Your task to perform on an android device: see creations saved in the google photos Image 0: 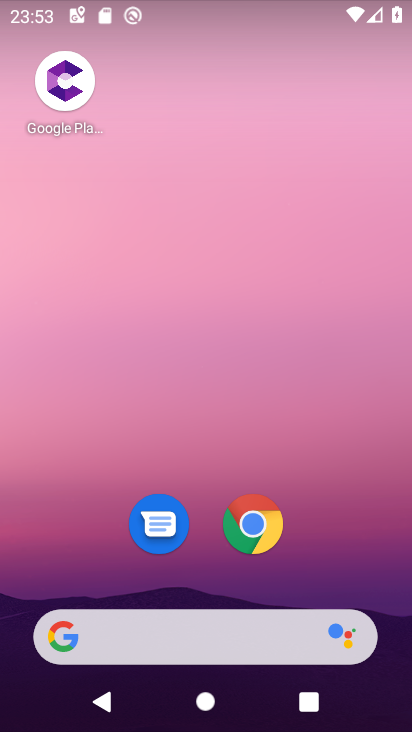
Step 0: drag from (310, 517) to (331, 62)
Your task to perform on an android device: see creations saved in the google photos Image 1: 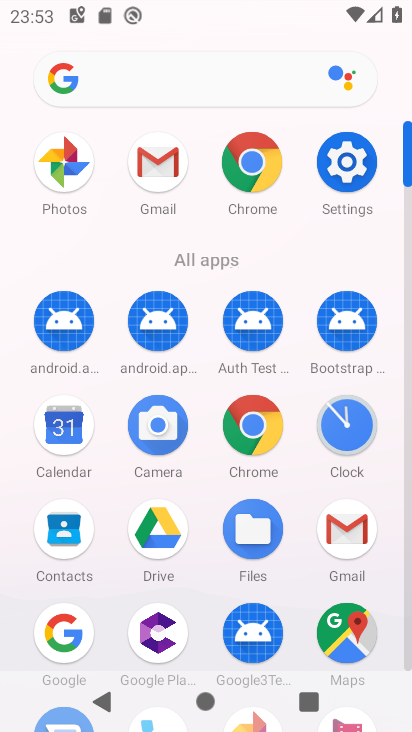
Step 1: click (67, 164)
Your task to perform on an android device: see creations saved in the google photos Image 2: 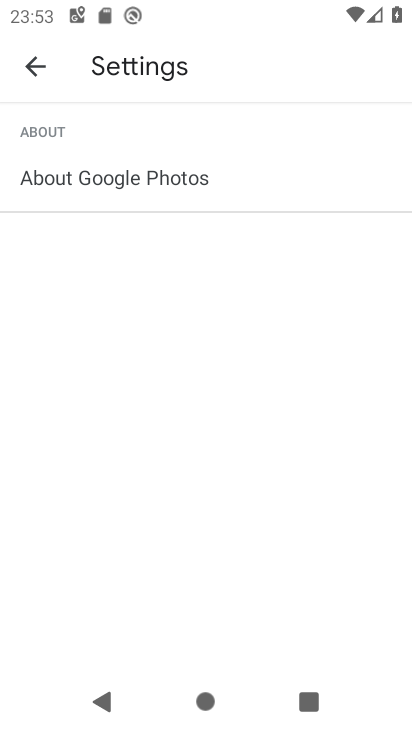
Step 2: click (43, 60)
Your task to perform on an android device: see creations saved in the google photos Image 3: 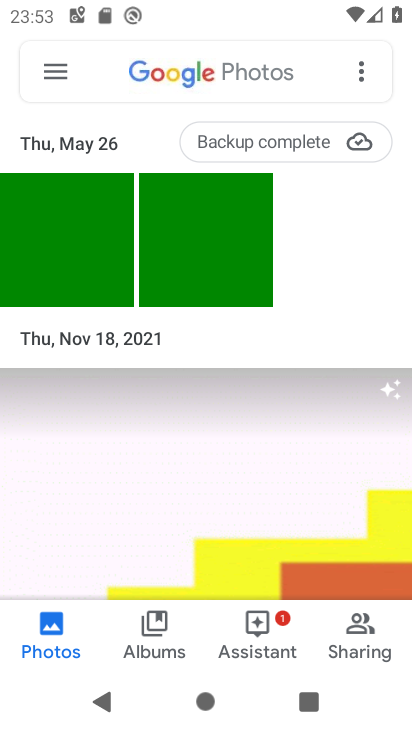
Step 3: click (175, 65)
Your task to perform on an android device: see creations saved in the google photos Image 4: 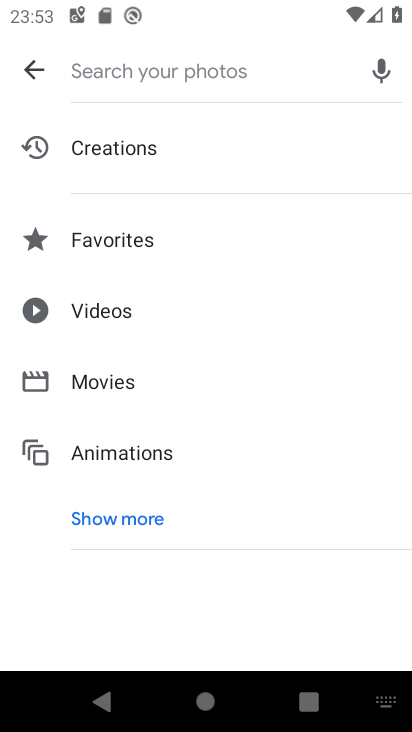
Step 4: click (131, 146)
Your task to perform on an android device: see creations saved in the google photos Image 5: 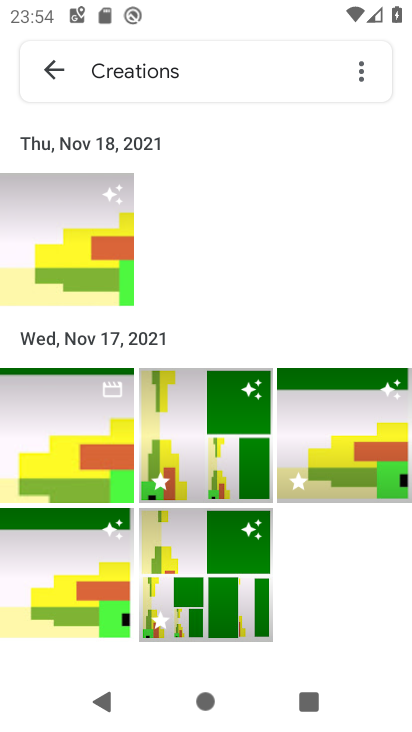
Step 5: task complete